Your task to perform on an android device: Add acer nitro to the cart on walmart, then select checkout. Image 0: 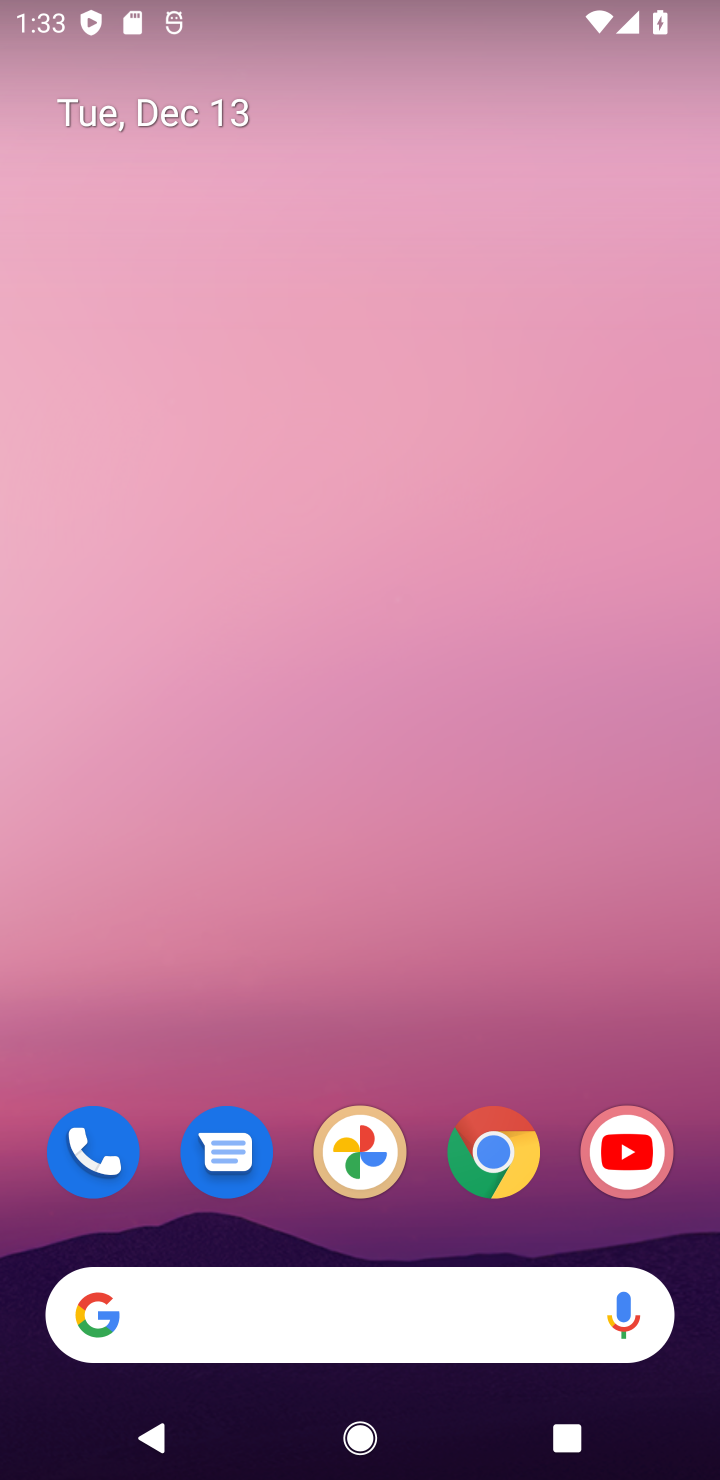
Step 0: drag from (385, 1280) to (288, 280)
Your task to perform on an android device: Add acer nitro to the cart on walmart, then select checkout. Image 1: 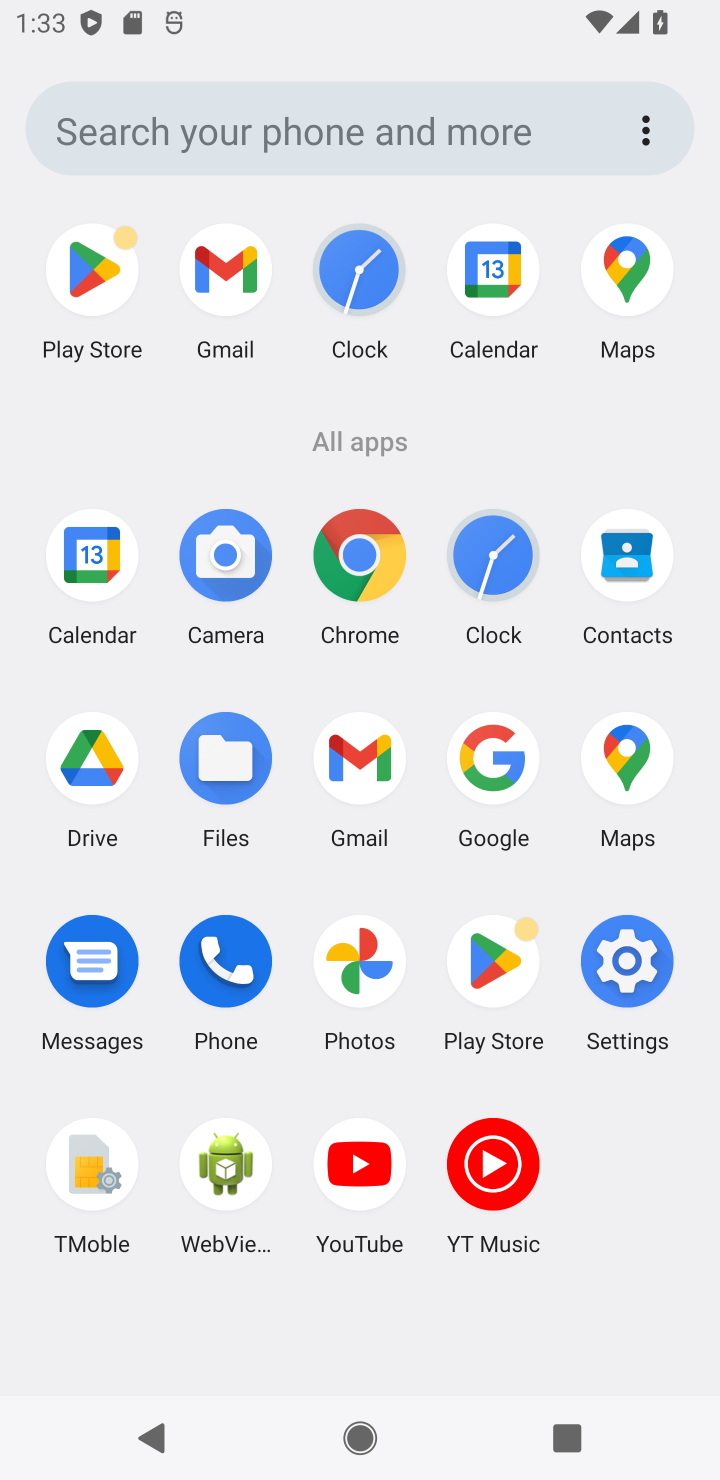
Step 1: click (504, 720)
Your task to perform on an android device: Add acer nitro to the cart on walmart, then select checkout. Image 2: 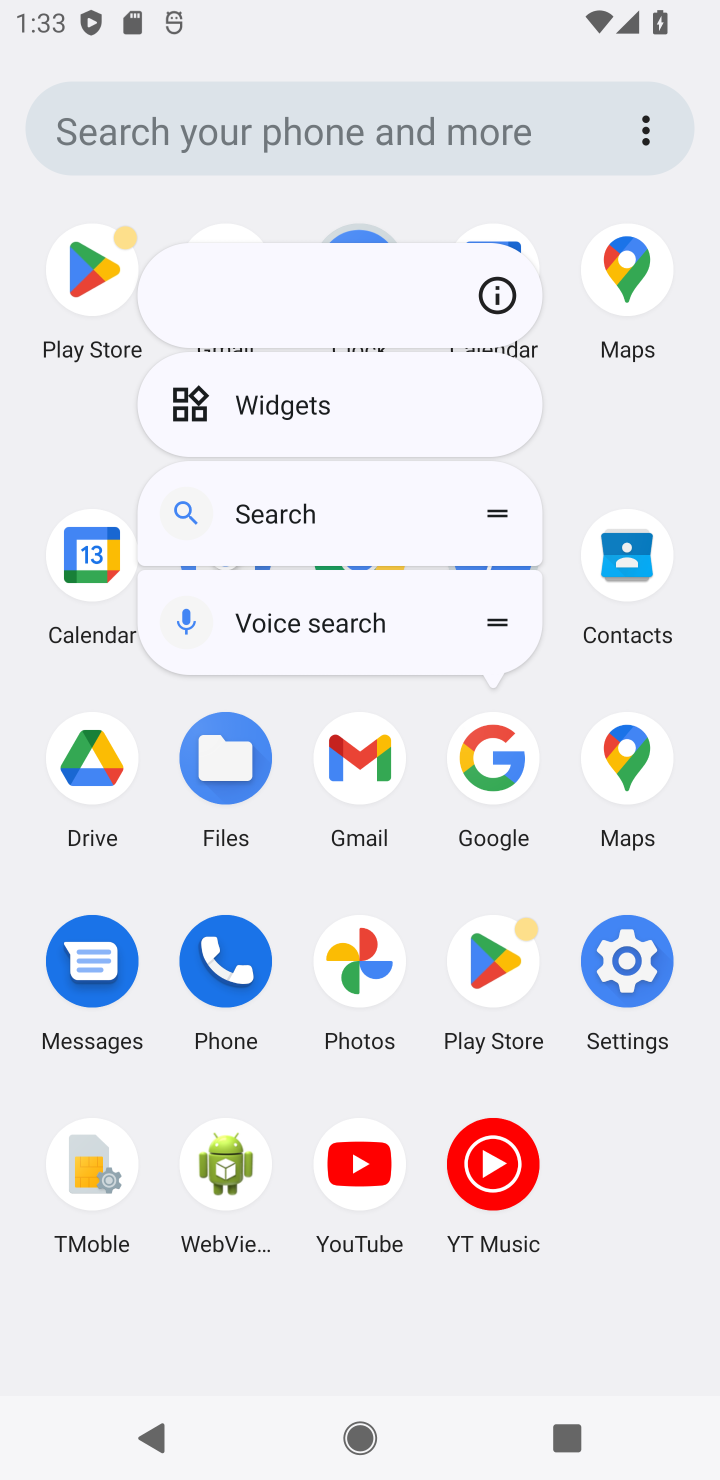
Step 2: click (499, 738)
Your task to perform on an android device: Add acer nitro to the cart on walmart, then select checkout. Image 3: 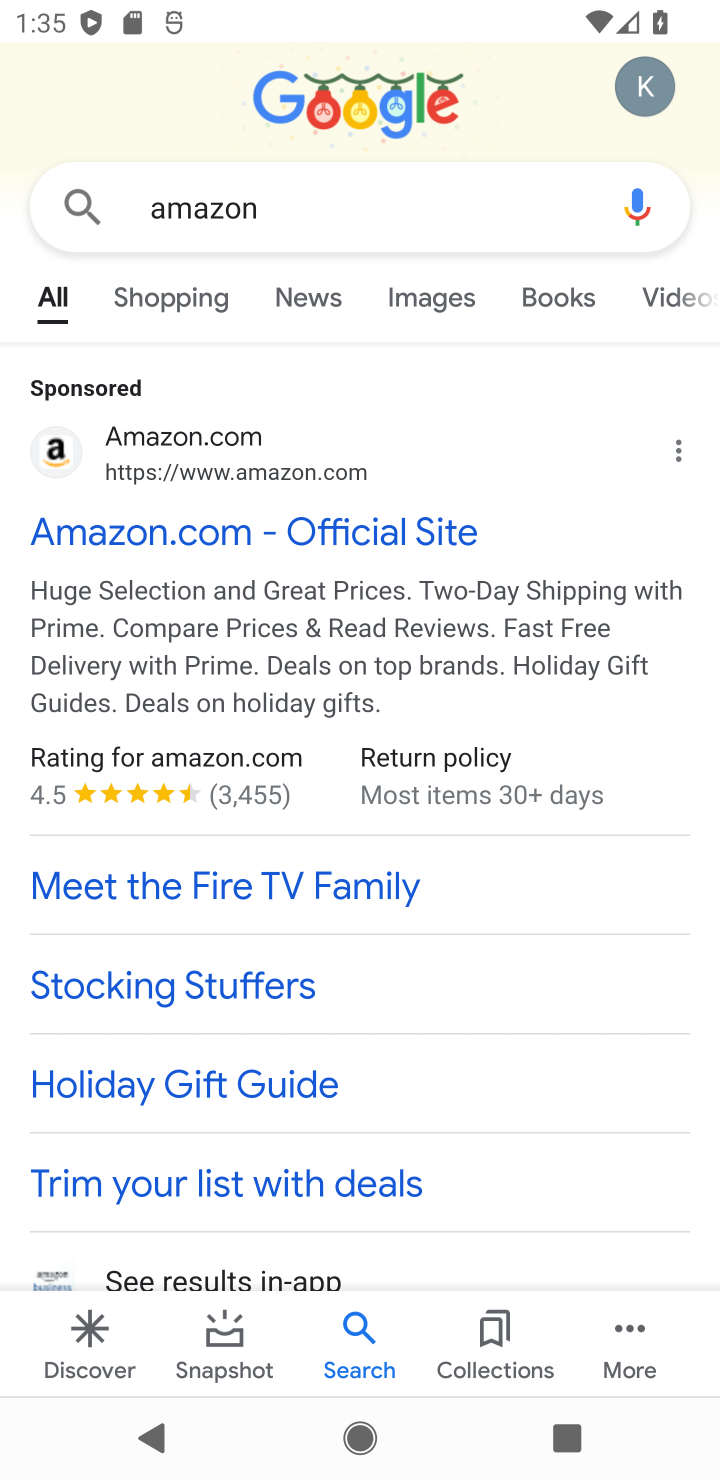
Step 3: click (229, 203)
Your task to perform on an android device: Add acer nitro to the cart on walmart, then select checkout. Image 4: 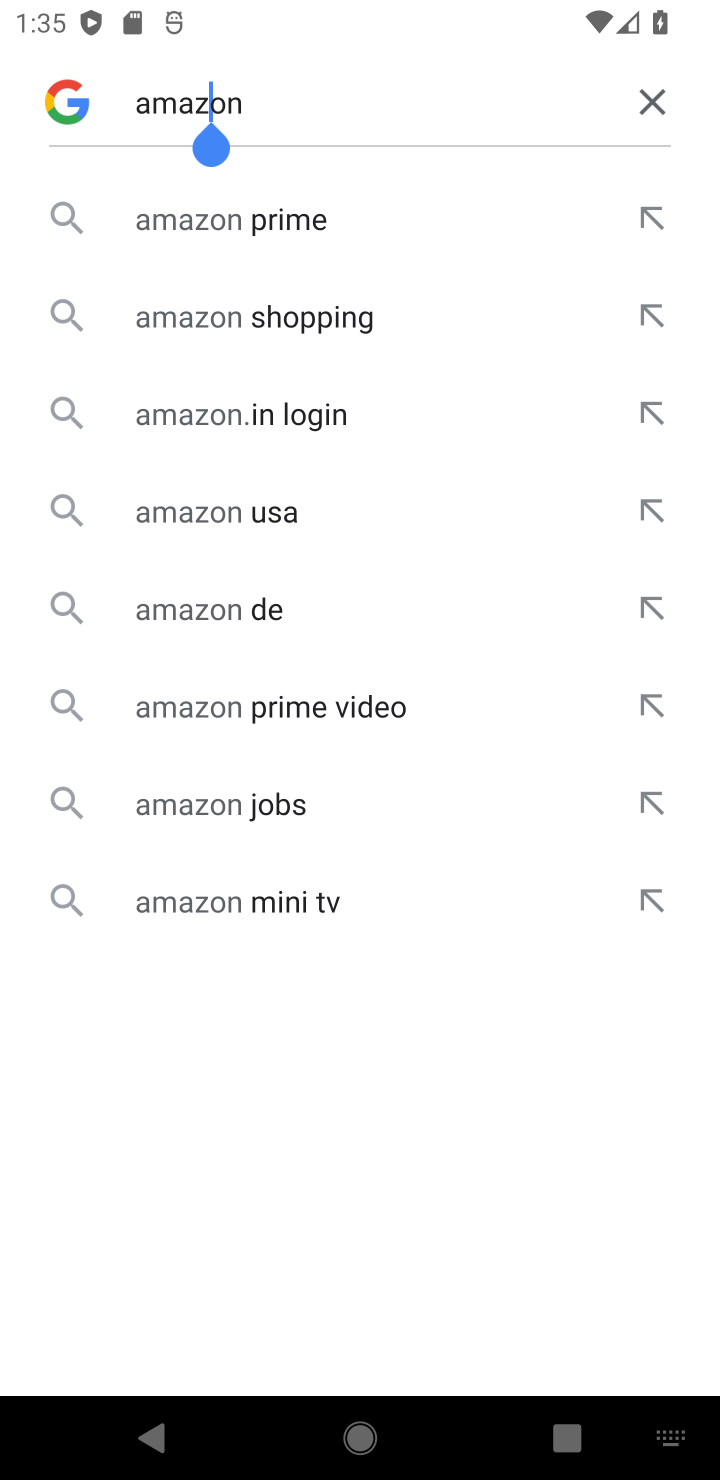
Step 4: click (664, 90)
Your task to perform on an android device: Add acer nitro to the cart on walmart, then select checkout. Image 5: 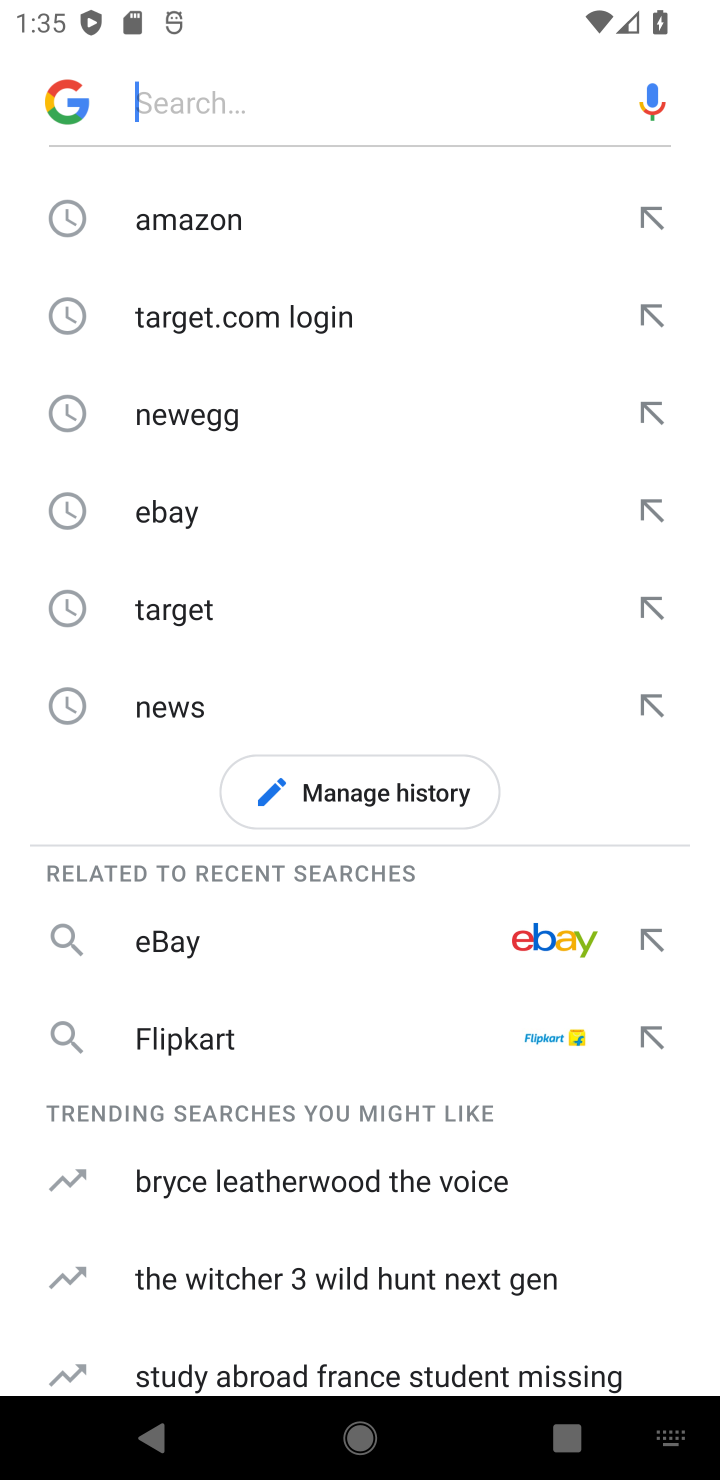
Step 5: type "walmart"
Your task to perform on an android device: Add acer nitro to the cart on walmart, then select checkout. Image 6: 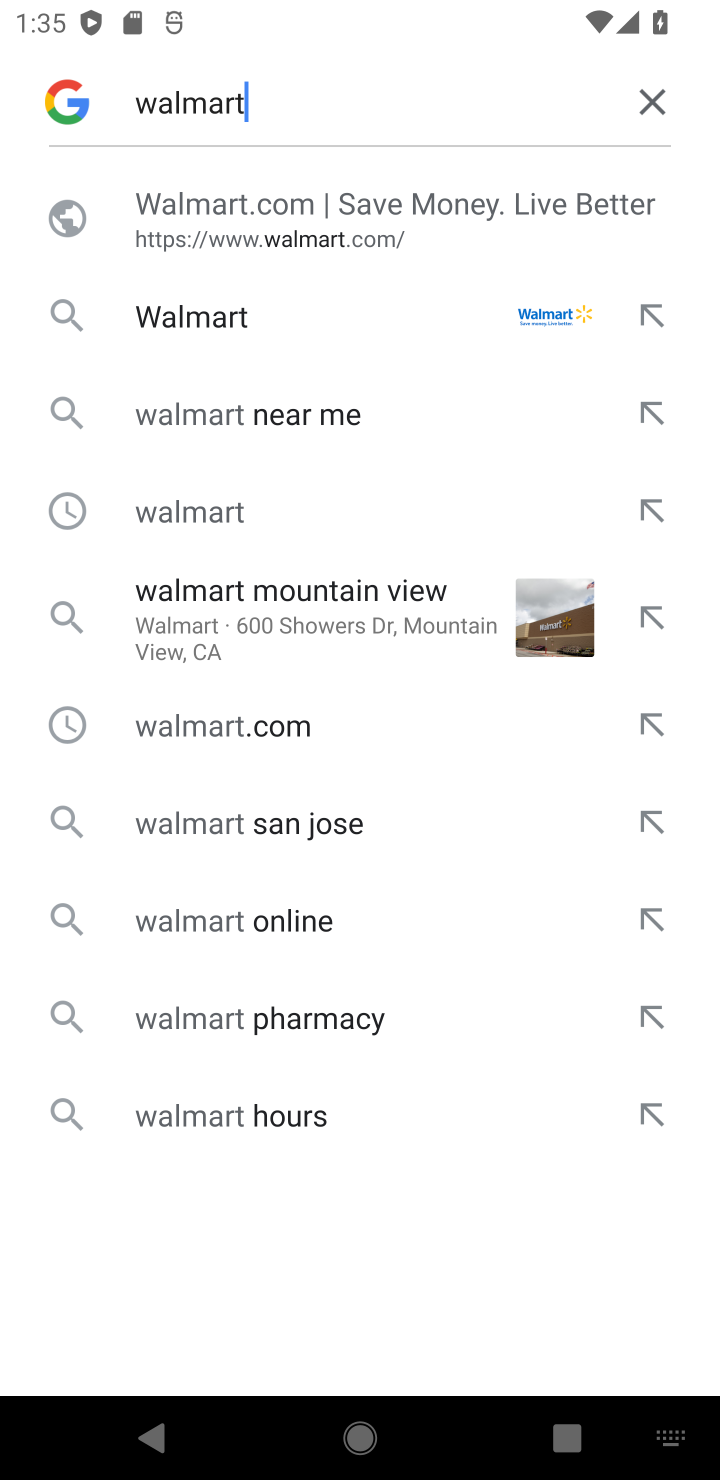
Step 6: click (306, 217)
Your task to perform on an android device: Add acer nitro to the cart on walmart, then select checkout. Image 7: 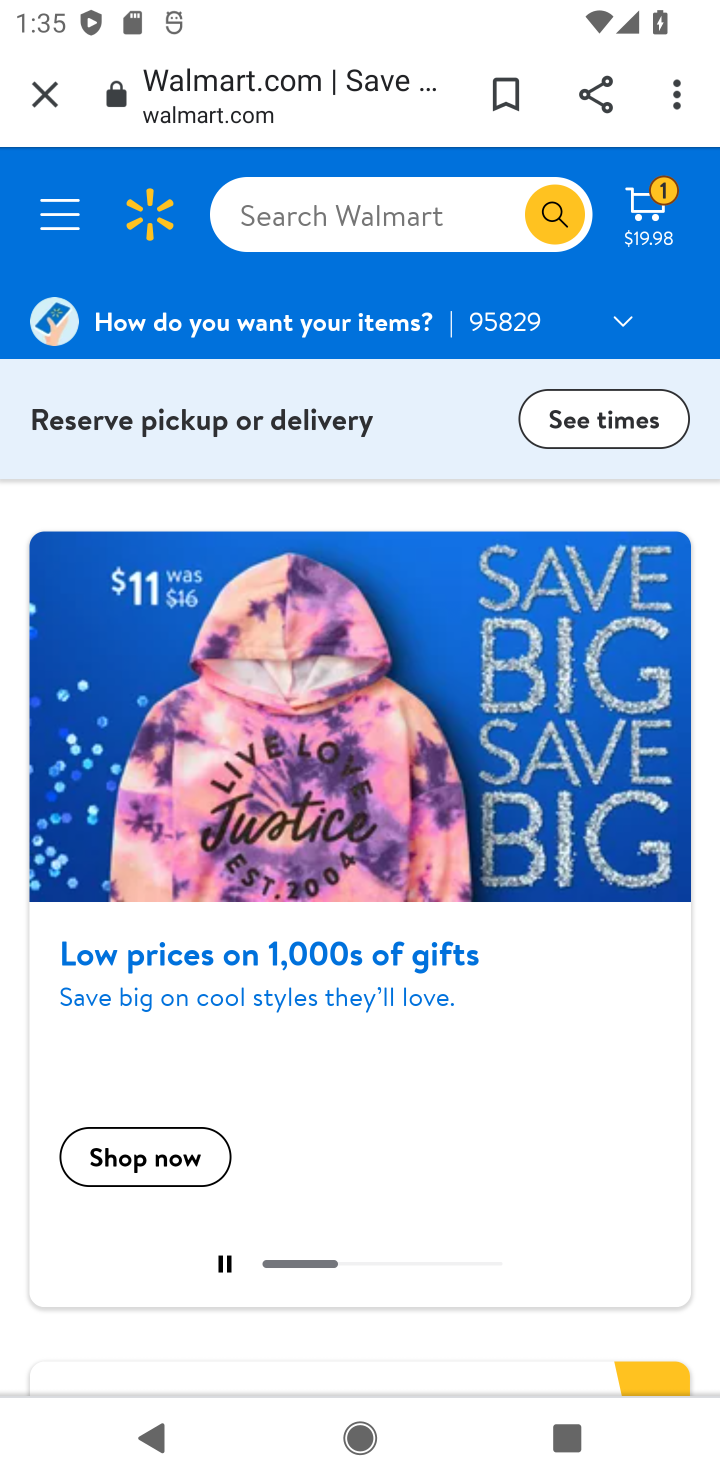
Step 7: click (340, 207)
Your task to perform on an android device: Add acer nitro to the cart on walmart, then select checkout. Image 8: 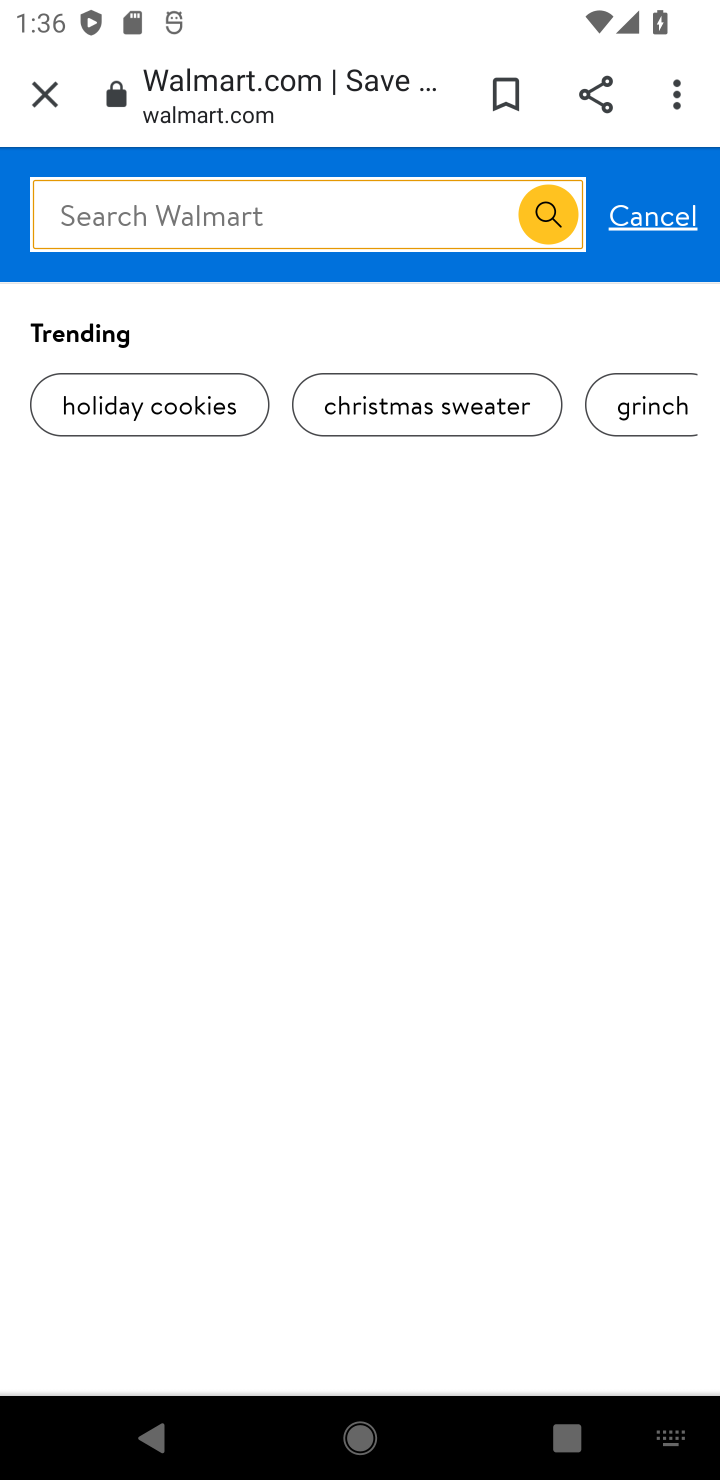
Step 8: type "acer nitro"
Your task to perform on an android device: Add acer nitro to the cart on walmart, then select checkout. Image 9: 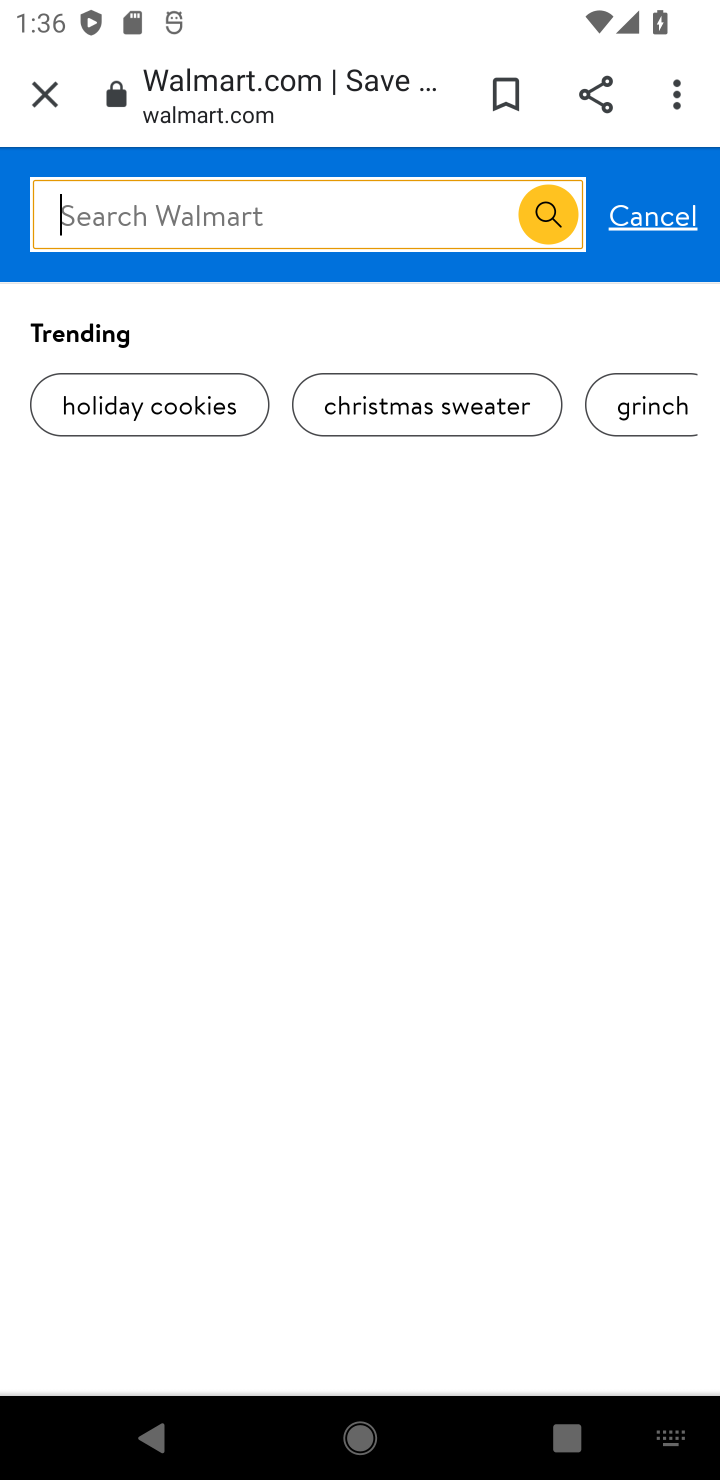
Step 9: click (528, 215)
Your task to perform on an android device: Add acer nitro to the cart on walmart, then select checkout. Image 10: 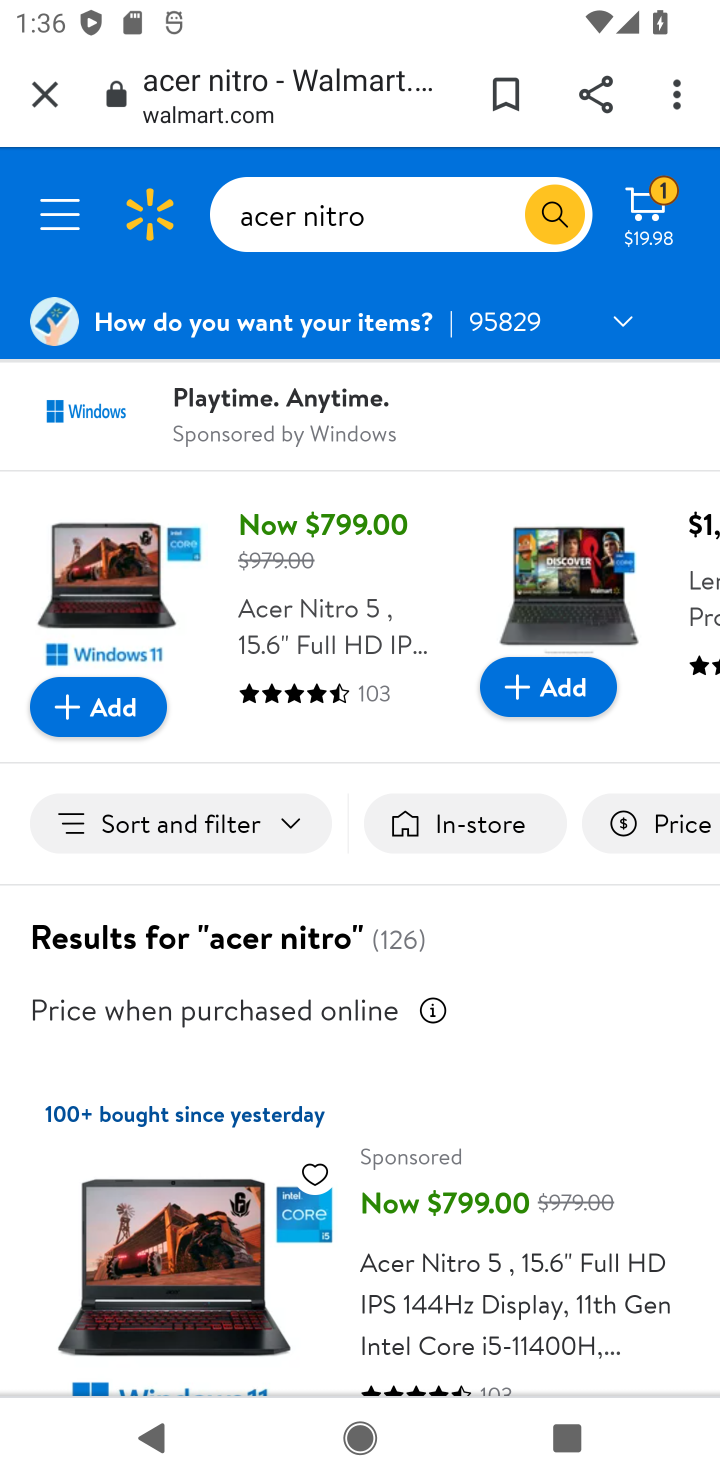
Step 10: drag from (443, 1279) to (441, 974)
Your task to perform on an android device: Add acer nitro to the cart on walmart, then select checkout. Image 11: 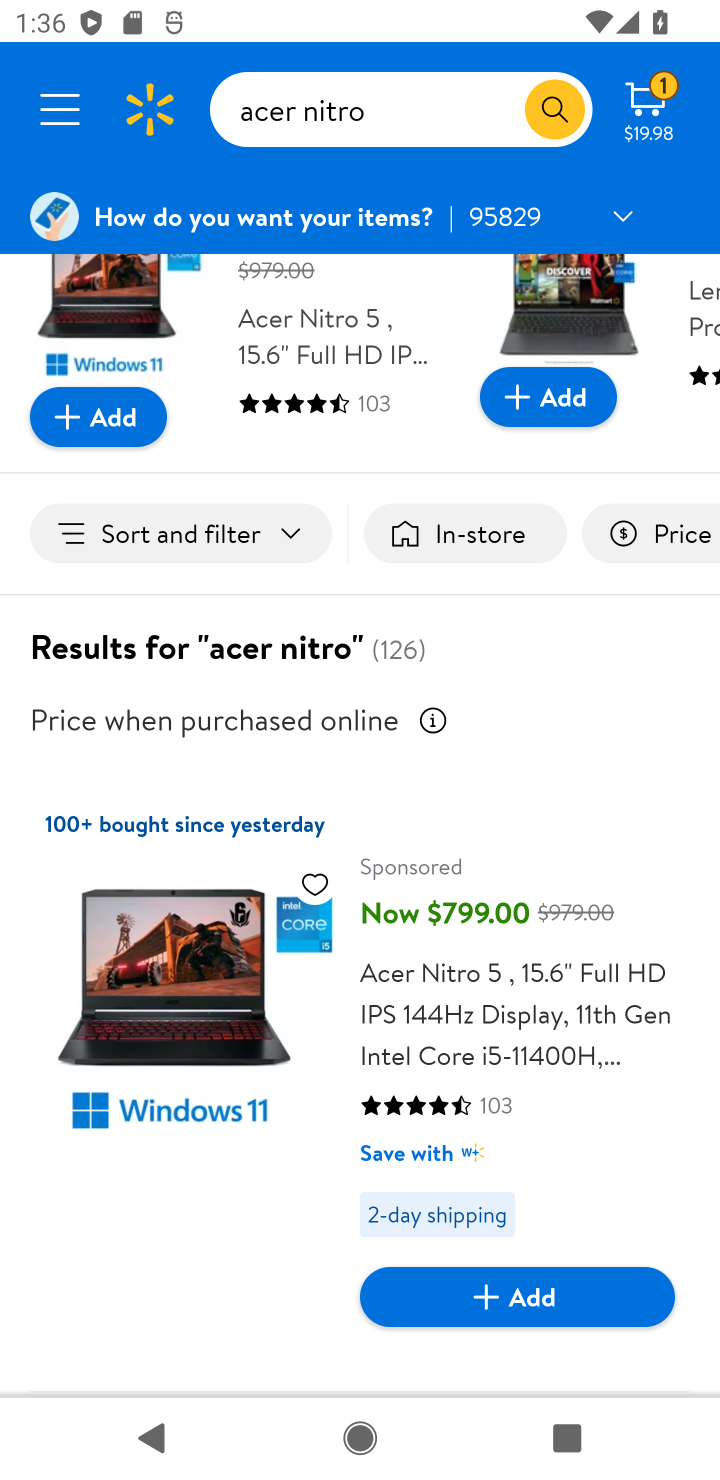
Step 11: click (527, 1295)
Your task to perform on an android device: Add acer nitro to the cart on walmart, then select checkout. Image 12: 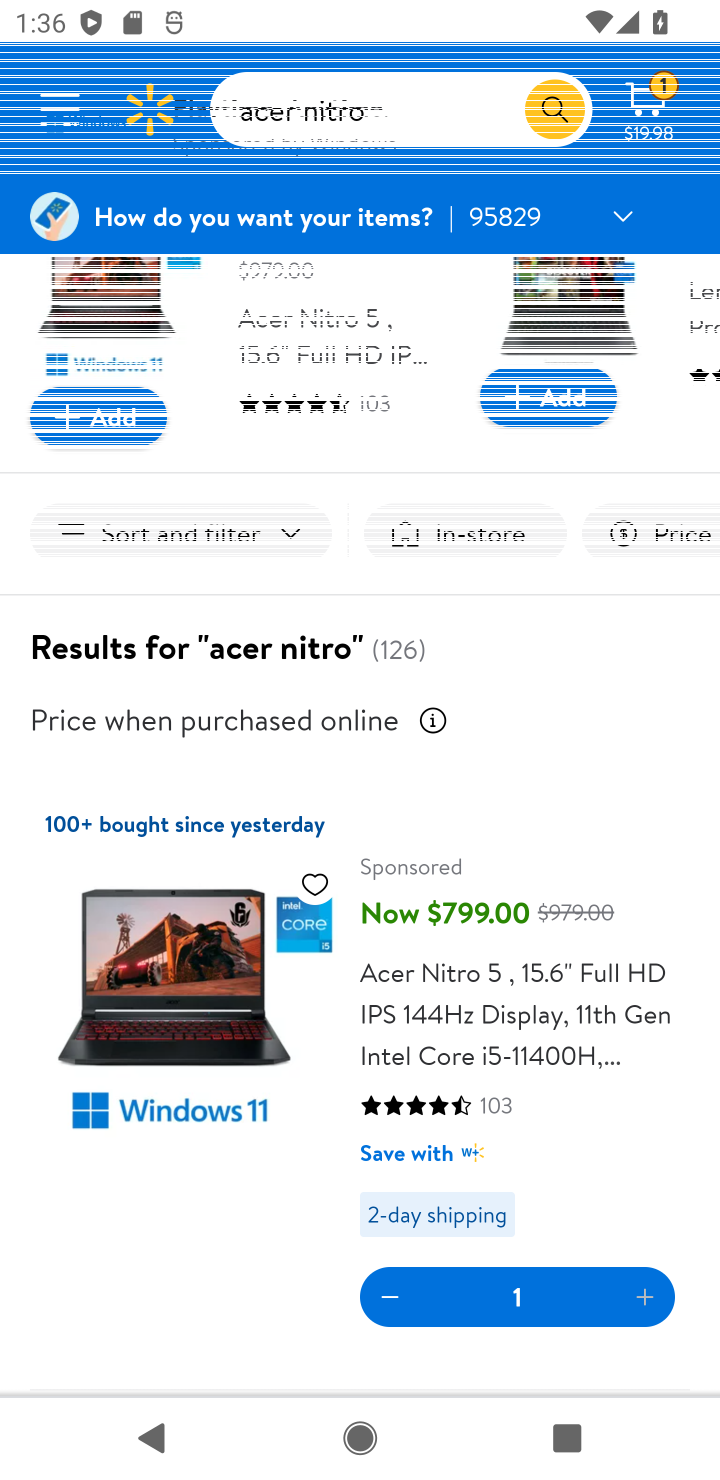
Step 12: click (668, 95)
Your task to perform on an android device: Add acer nitro to the cart on walmart, then select checkout. Image 13: 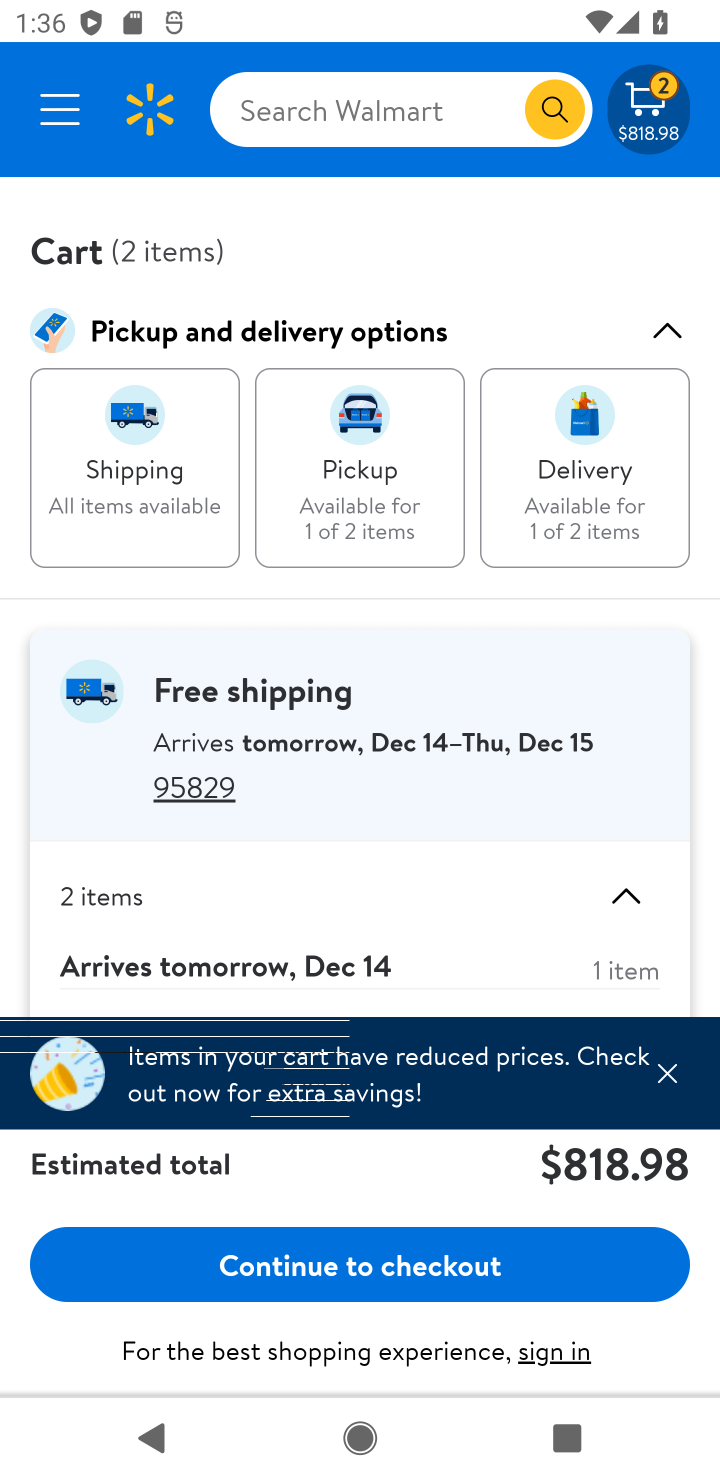
Step 13: click (375, 1277)
Your task to perform on an android device: Add acer nitro to the cart on walmart, then select checkout. Image 14: 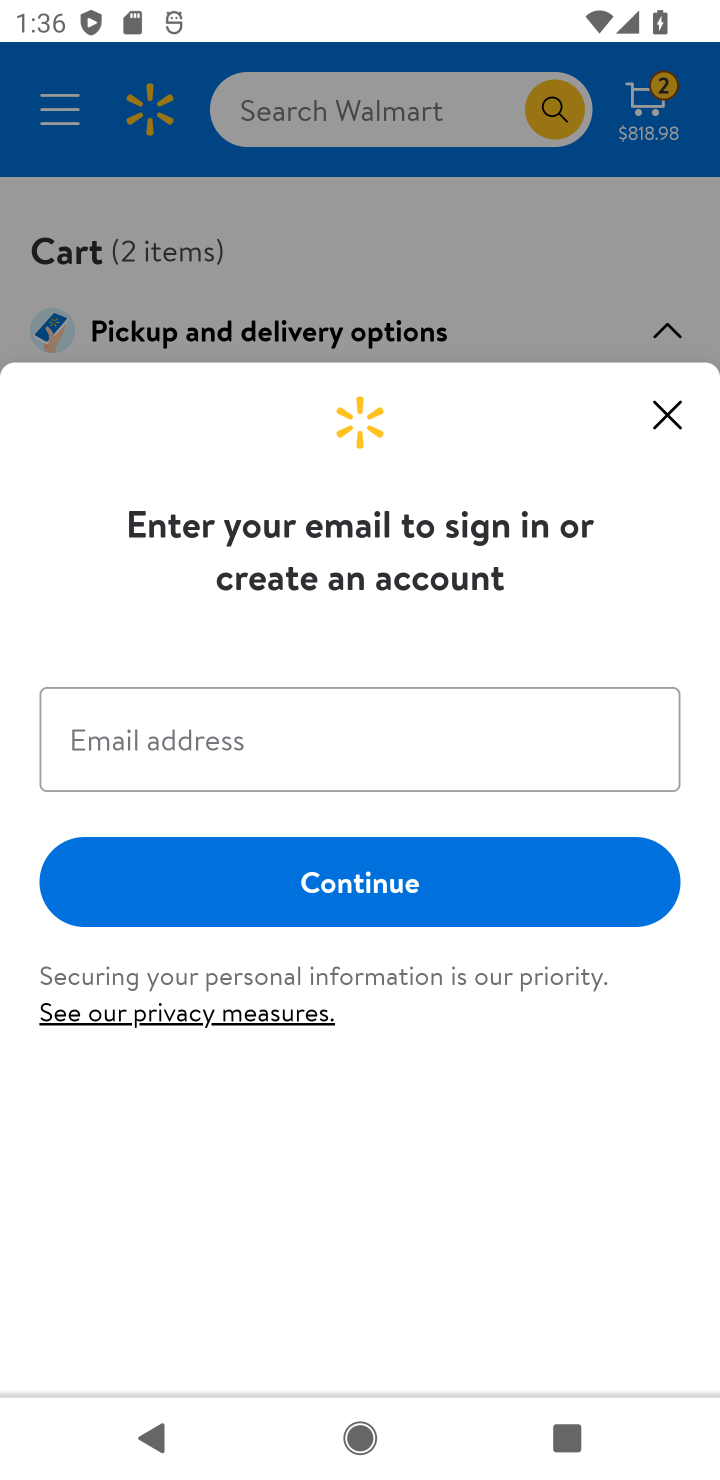
Step 14: task complete